Your task to perform on an android device: create a new album in the google photos Image 0: 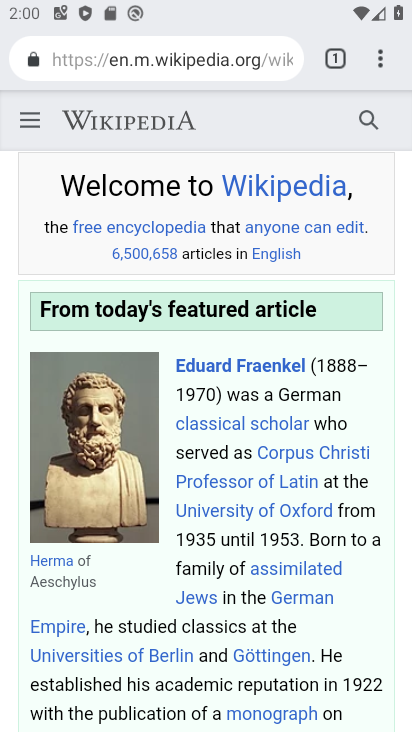
Step 0: press home button
Your task to perform on an android device: create a new album in the google photos Image 1: 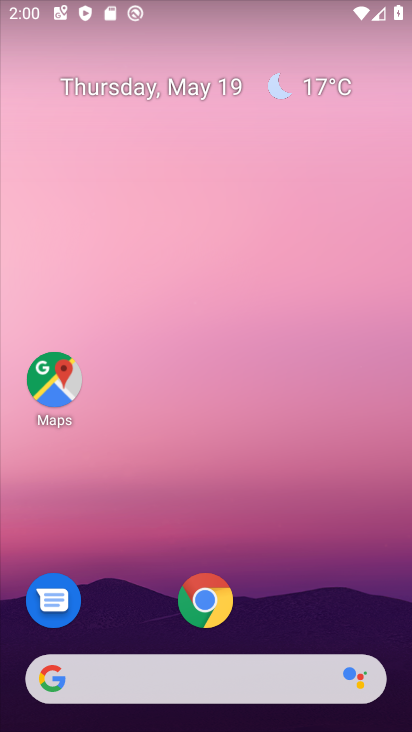
Step 1: drag from (285, 576) to (84, 171)
Your task to perform on an android device: create a new album in the google photos Image 2: 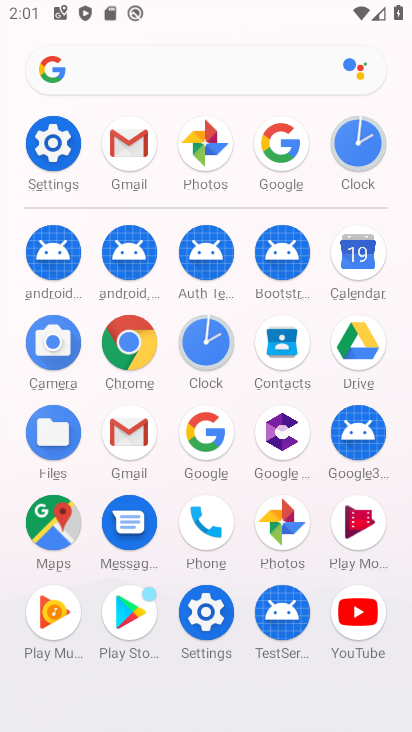
Step 2: click (276, 503)
Your task to perform on an android device: create a new album in the google photos Image 3: 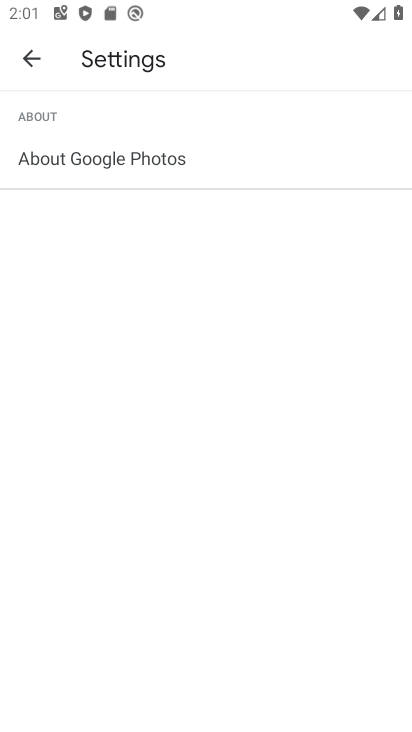
Step 3: click (31, 51)
Your task to perform on an android device: create a new album in the google photos Image 4: 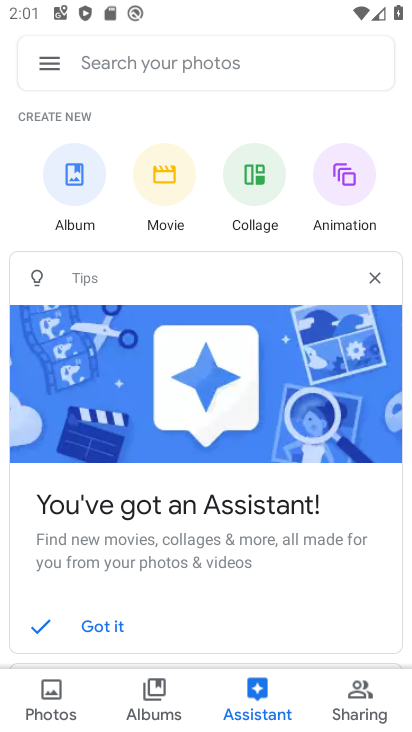
Step 4: click (65, 687)
Your task to perform on an android device: create a new album in the google photos Image 5: 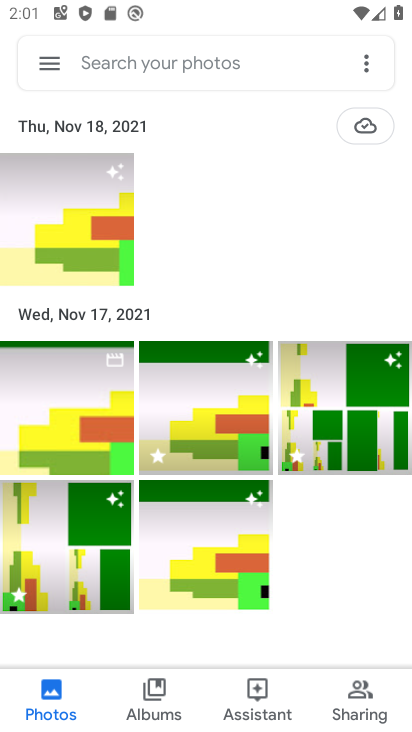
Step 5: click (93, 505)
Your task to perform on an android device: create a new album in the google photos Image 6: 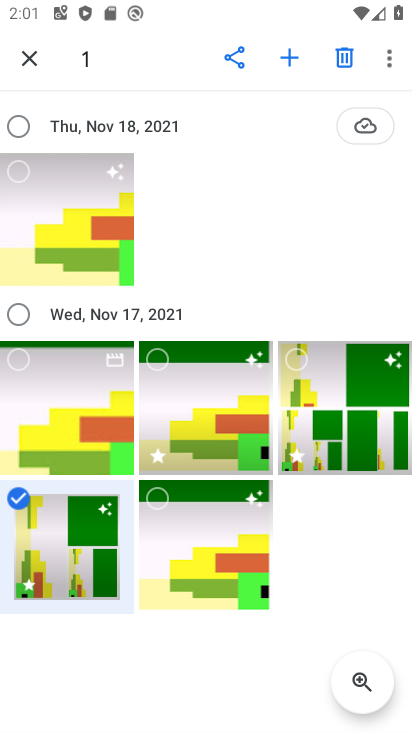
Step 6: click (39, 172)
Your task to perform on an android device: create a new album in the google photos Image 7: 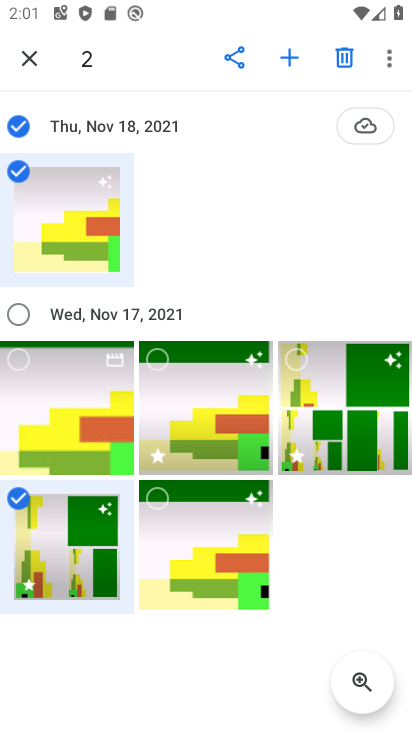
Step 7: click (275, 48)
Your task to perform on an android device: create a new album in the google photos Image 8: 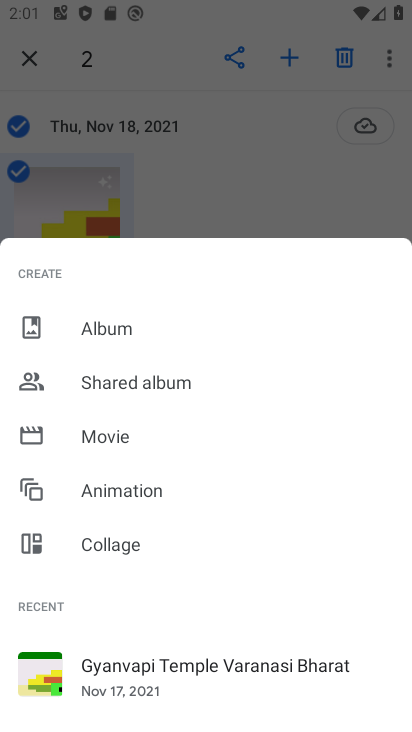
Step 8: click (156, 327)
Your task to perform on an android device: create a new album in the google photos Image 9: 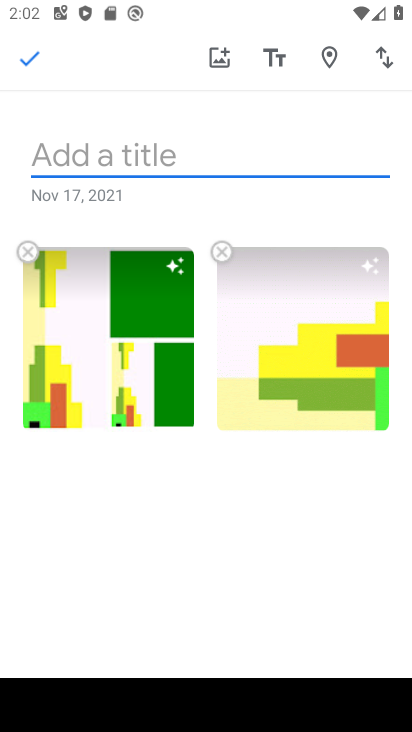
Step 9: type "tt"
Your task to perform on an android device: create a new album in the google photos Image 10: 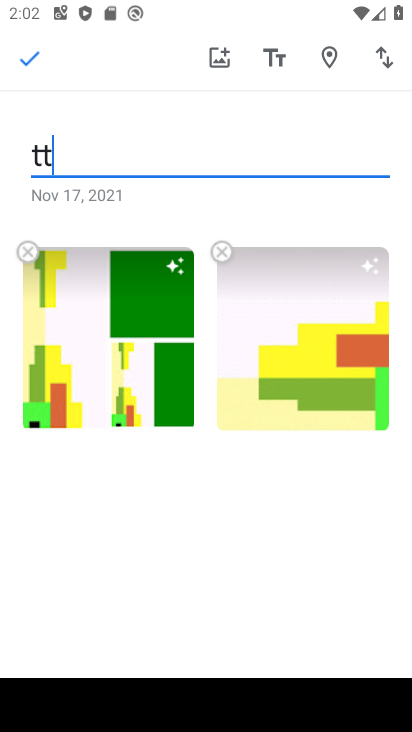
Step 10: type ""
Your task to perform on an android device: create a new album in the google photos Image 11: 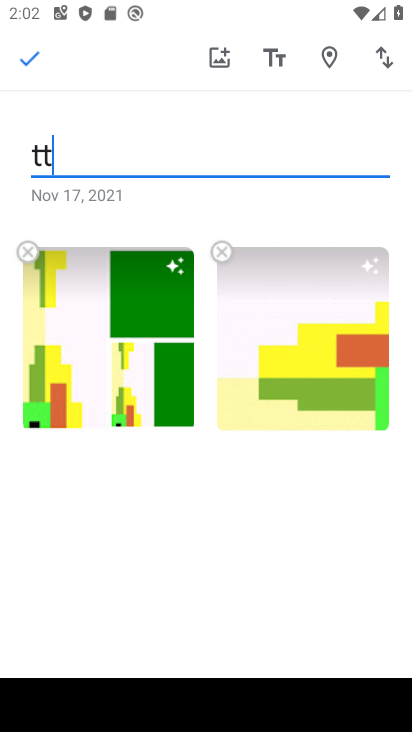
Step 11: click (42, 56)
Your task to perform on an android device: create a new album in the google photos Image 12: 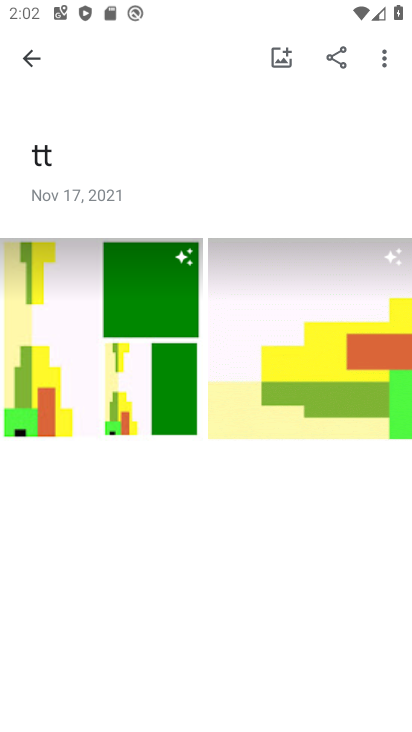
Step 12: task complete